Your task to perform on an android device: Turn off the flashlight Image 0: 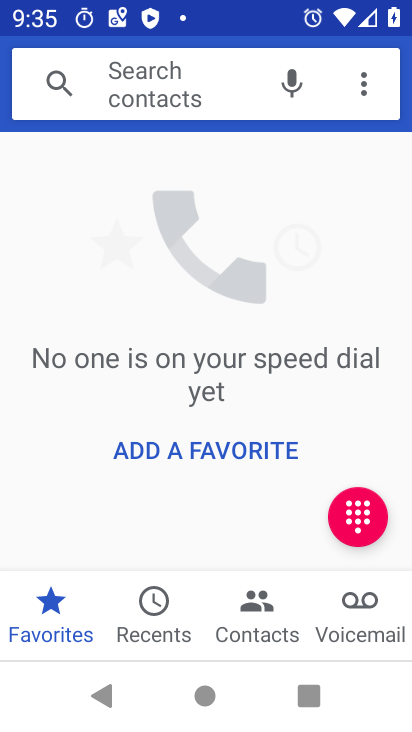
Step 0: press home button
Your task to perform on an android device: Turn off the flashlight Image 1: 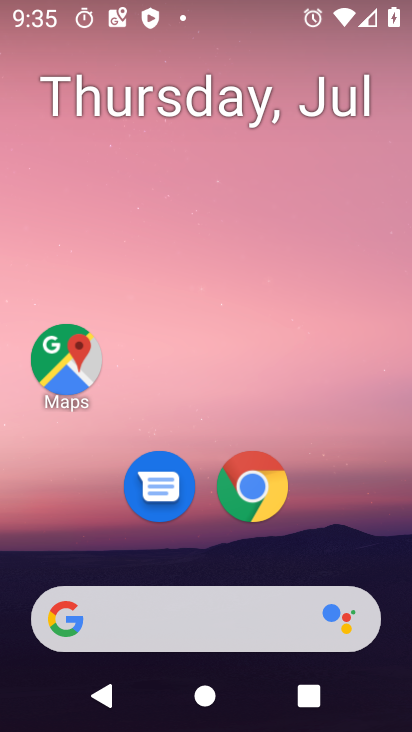
Step 1: task complete